Your task to perform on an android device: Do I have any events today? Image 0: 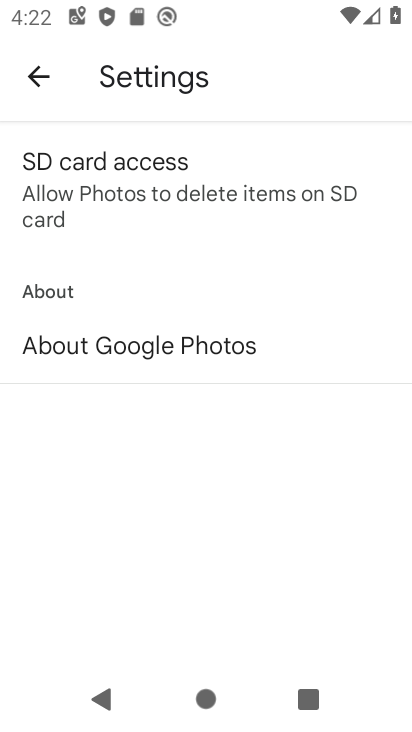
Step 0: press home button
Your task to perform on an android device: Do I have any events today? Image 1: 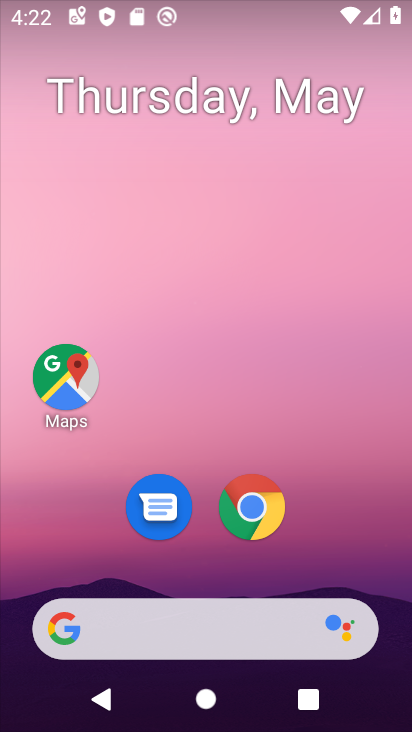
Step 1: drag from (196, 578) to (269, 54)
Your task to perform on an android device: Do I have any events today? Image 2: 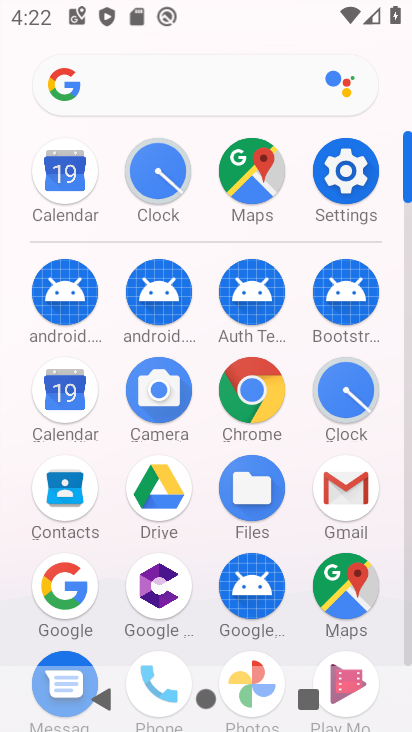
Step 2: click (49, 394)
Your task to perform on an android device: Do I have any events today? Image 3: 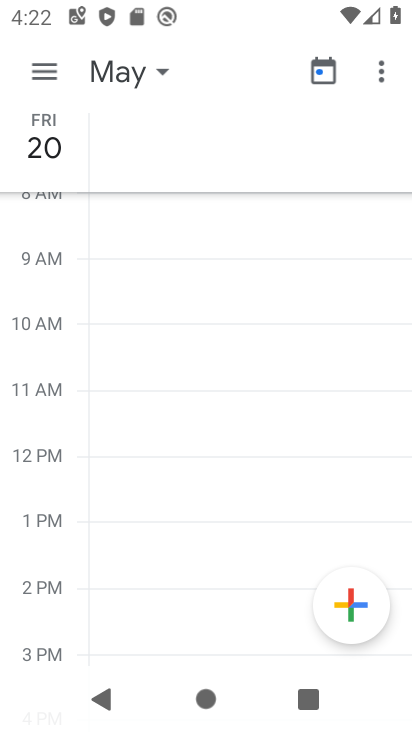
Step 3: click (55, 71)
Your task to perform on an android device: Do I have any events today? Image 4: 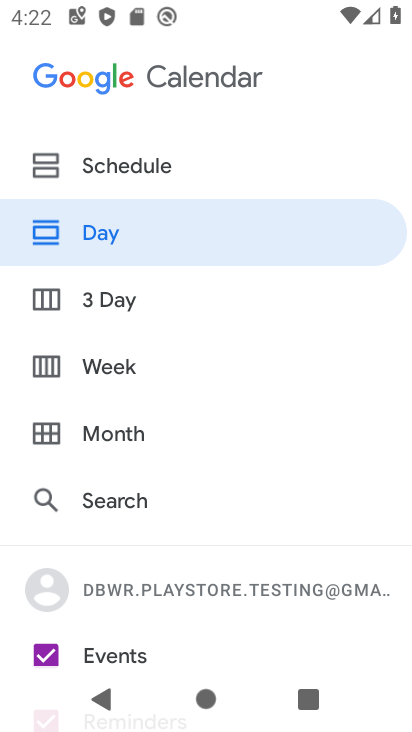
Step 4: click (146, 175)
Your task to perform on an android device: Do I have any events today? Image 5: 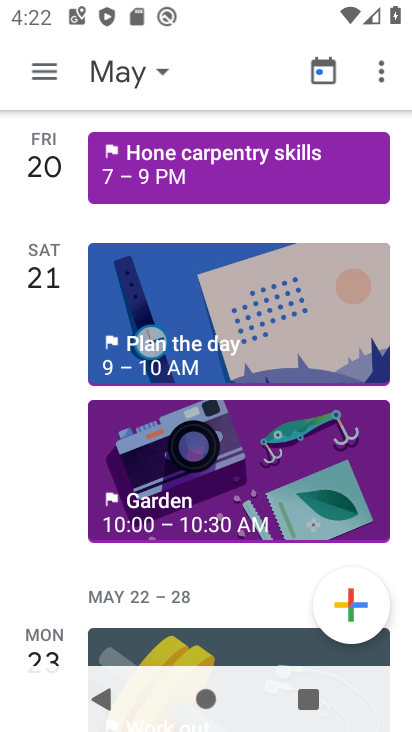
Step 5: click (114, 60)
Your task to perform on an android device: Do I have any events today? Image 6: 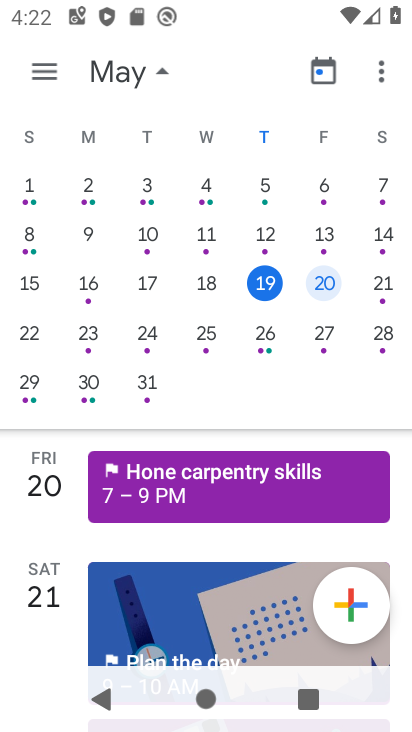
Step 6: click (265, 284)
Your task to perform on an android device: Do I have any events today? Image 7: 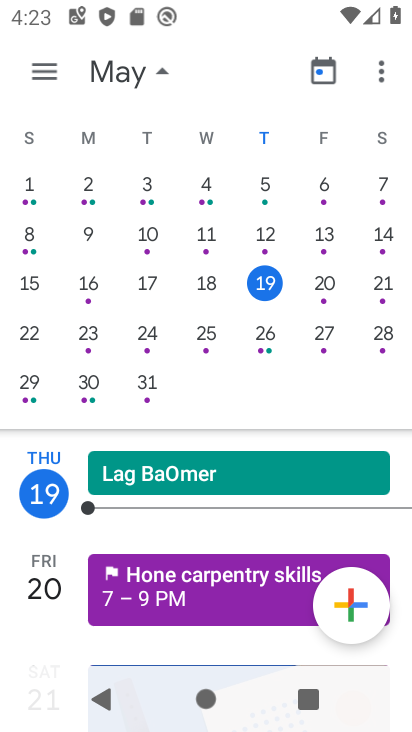
Step 7: task complete